Your task to perform on an android device: Empty the shopping cart on ebay. Search for "sony triple a" on ebay, select the first entry, add it to the cart, then select checkout. Image 0: 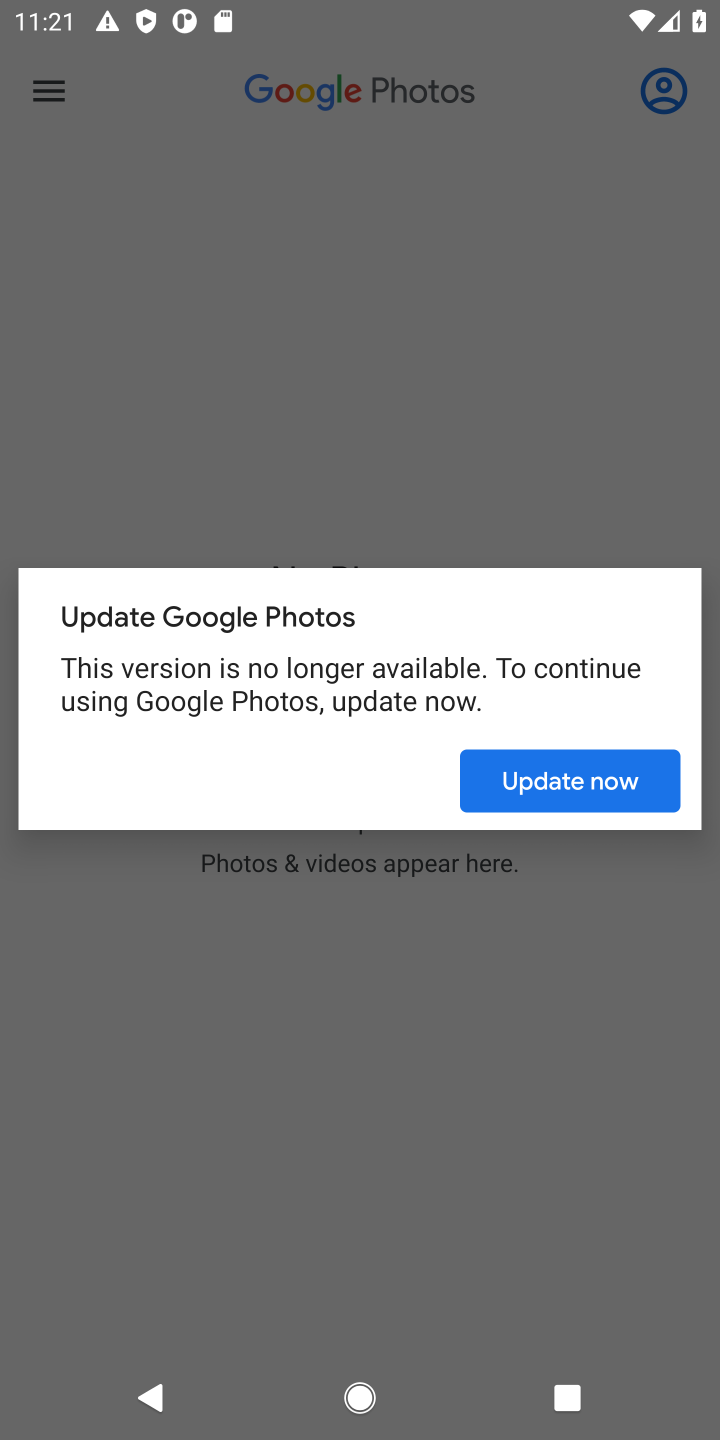
Step 0: press home button
Your task to perform on an android device: Empty the shopping cart on ebay. Search for "sony triple a" on ebay, select the first entry, add it to the cart, then select checkout. Image 1: 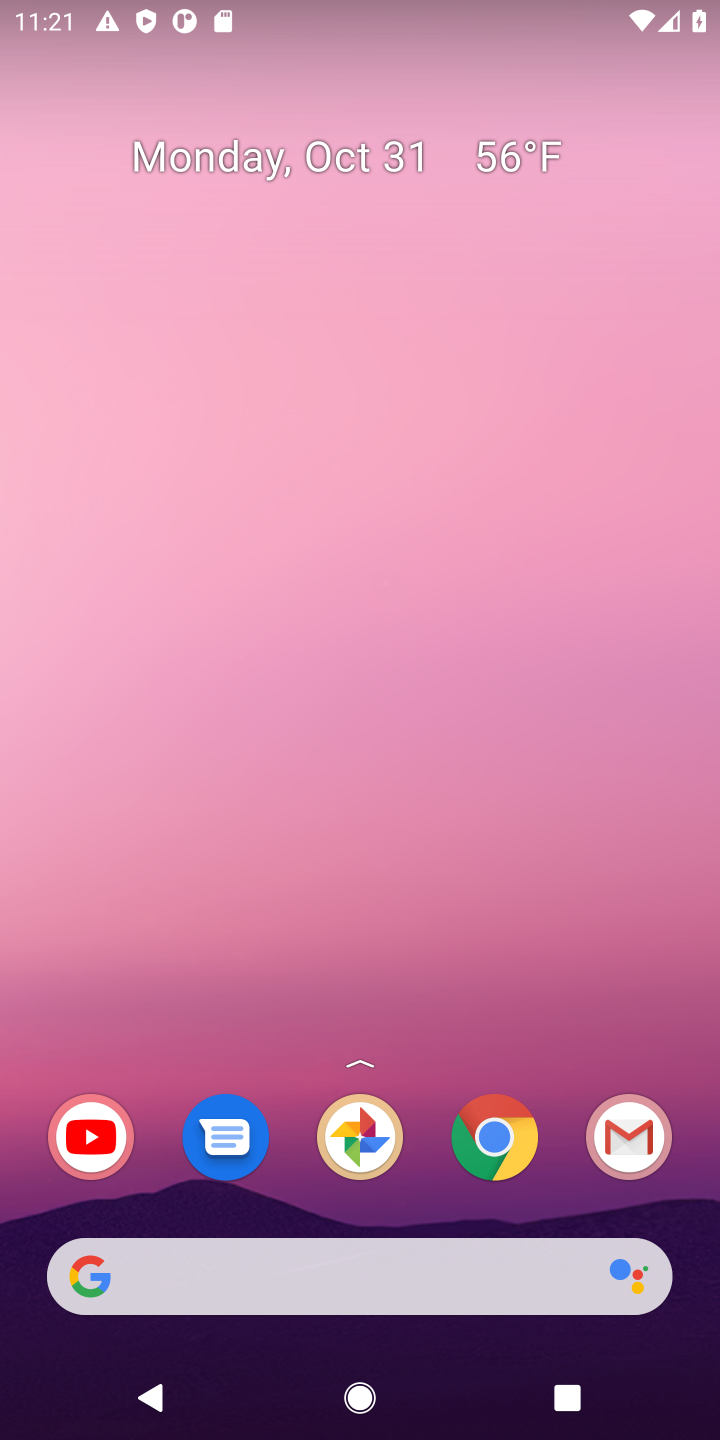
Step 1: click (494, 1138)
Your task to perform on an android device: Empty the shopping cart on ebay. Search for "sony triple a" on ebay, select the first entry, add it to the cart, then select checkout. Image 2: 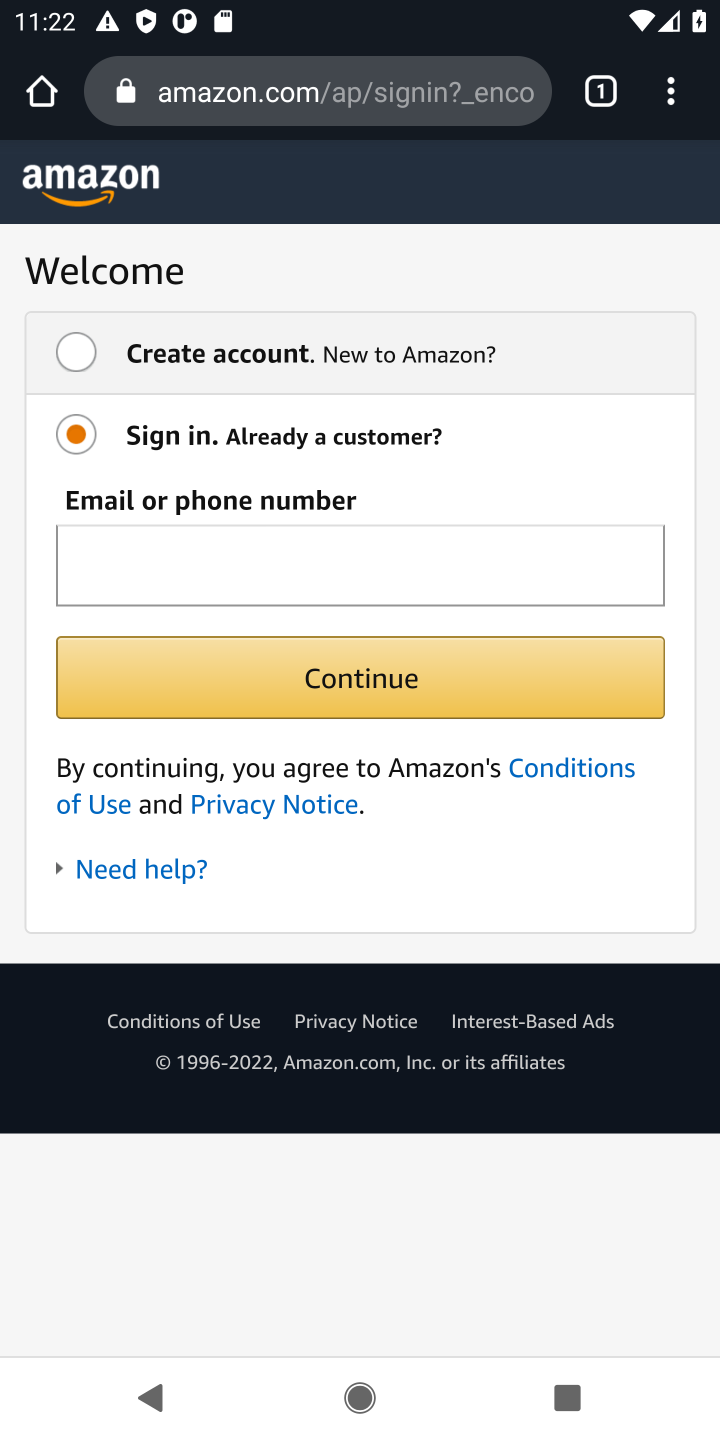
Step 2: click (430, 102)
Your task to perform on an android device: Empty the shopping cart on ebay. Search for "sony triple a" on ebay, select the first entry, add it to the cart, then select checkout. Image 3: 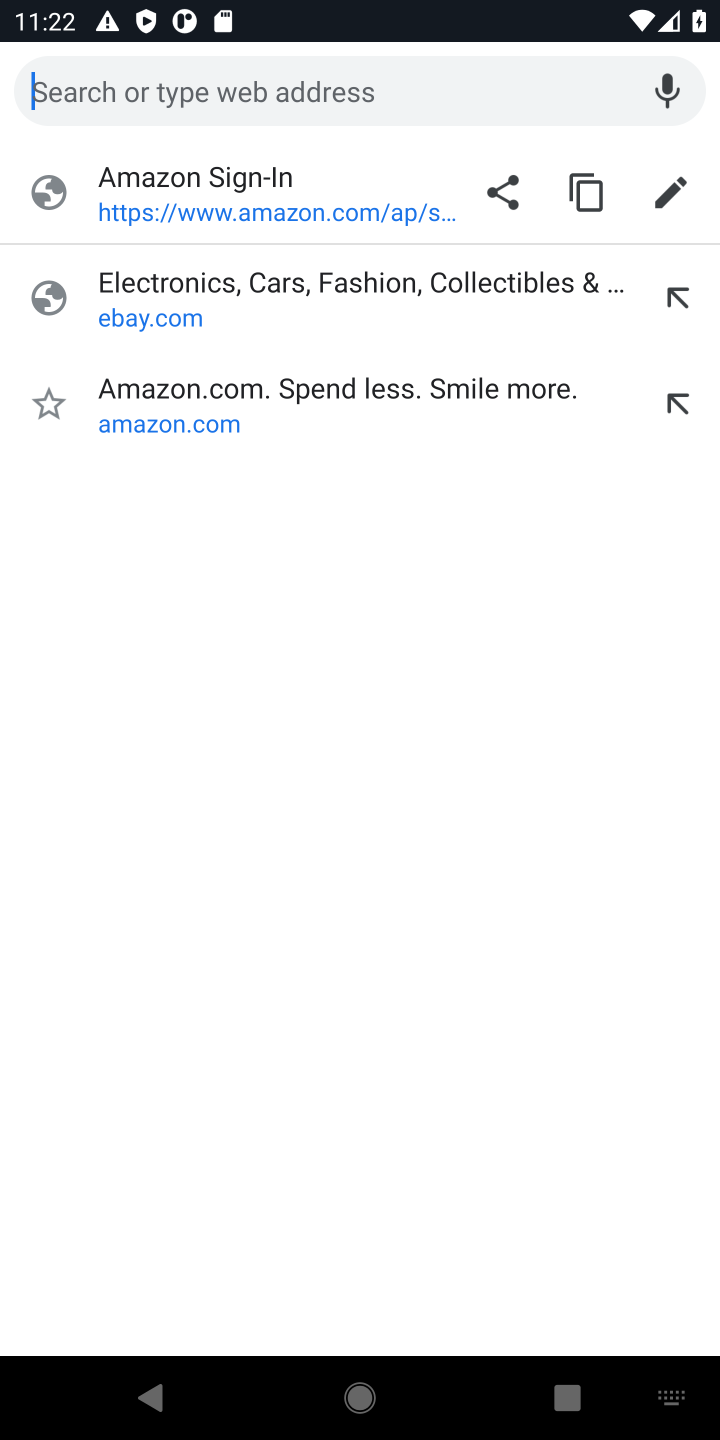
Step 3: type "ebay"
Your task to perform on an android device: Empty the shopping cart on ebay. Search for "sony triple a" on ebay, select the first entry, add it to the cart, then select checkout. Image 4: 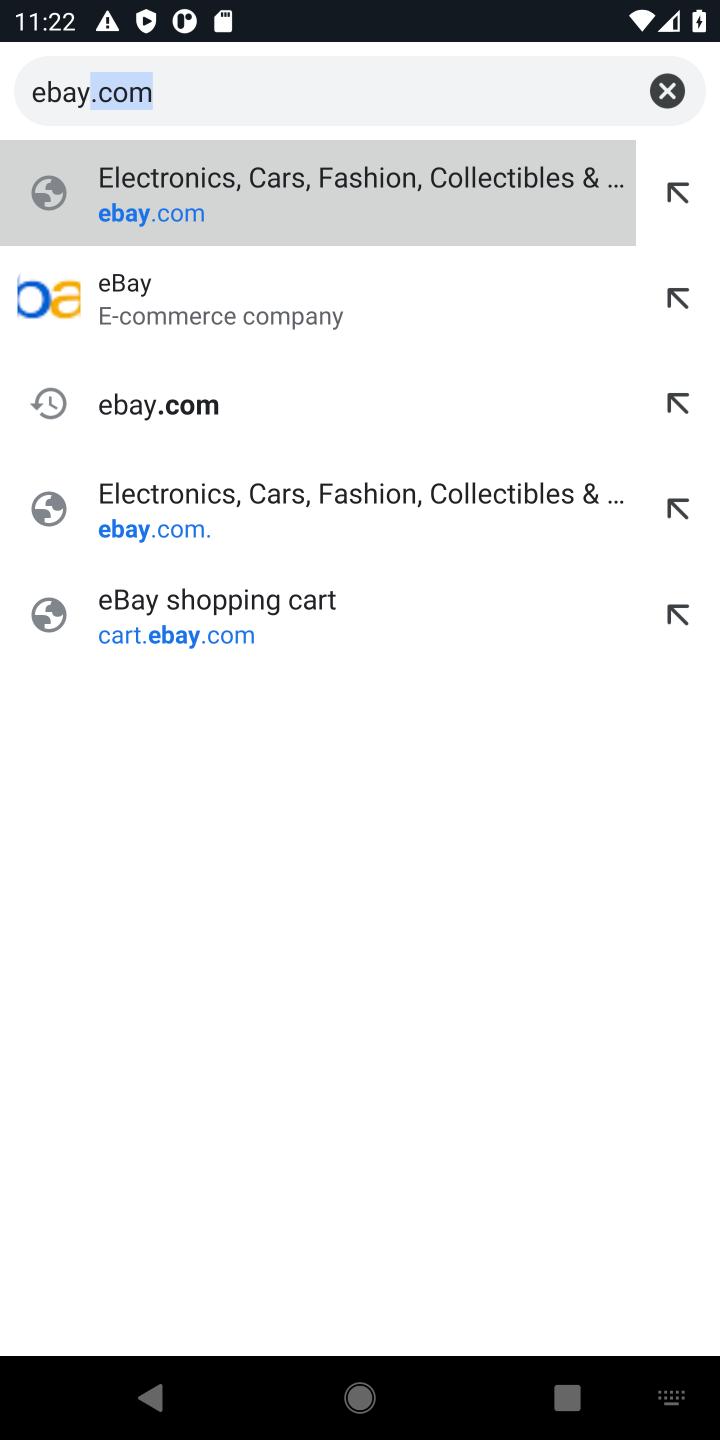
Step 4: click (153, 313)
Your task to perform on an android device: Empty the shopping cart on ebay. Search for "sony triple a" on ebay, select the first entry, add it to the cart, then select checkout. Image 5: 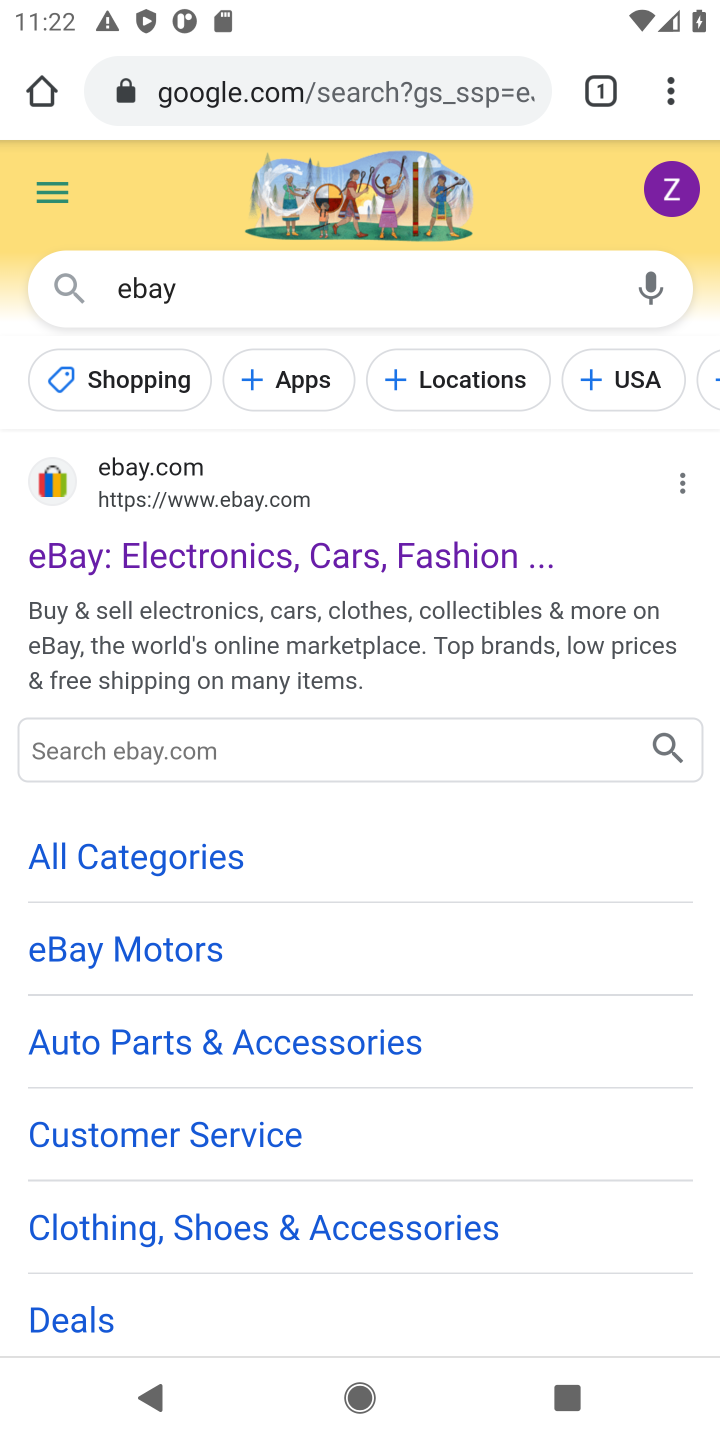
Step 5: click (189, 553)
Your task to perform on an android device: Empty the shopping cart on ebay. Search for "sony triple a" on ebay, select the first entry, add it to the cart, then select checkout. Image 6: 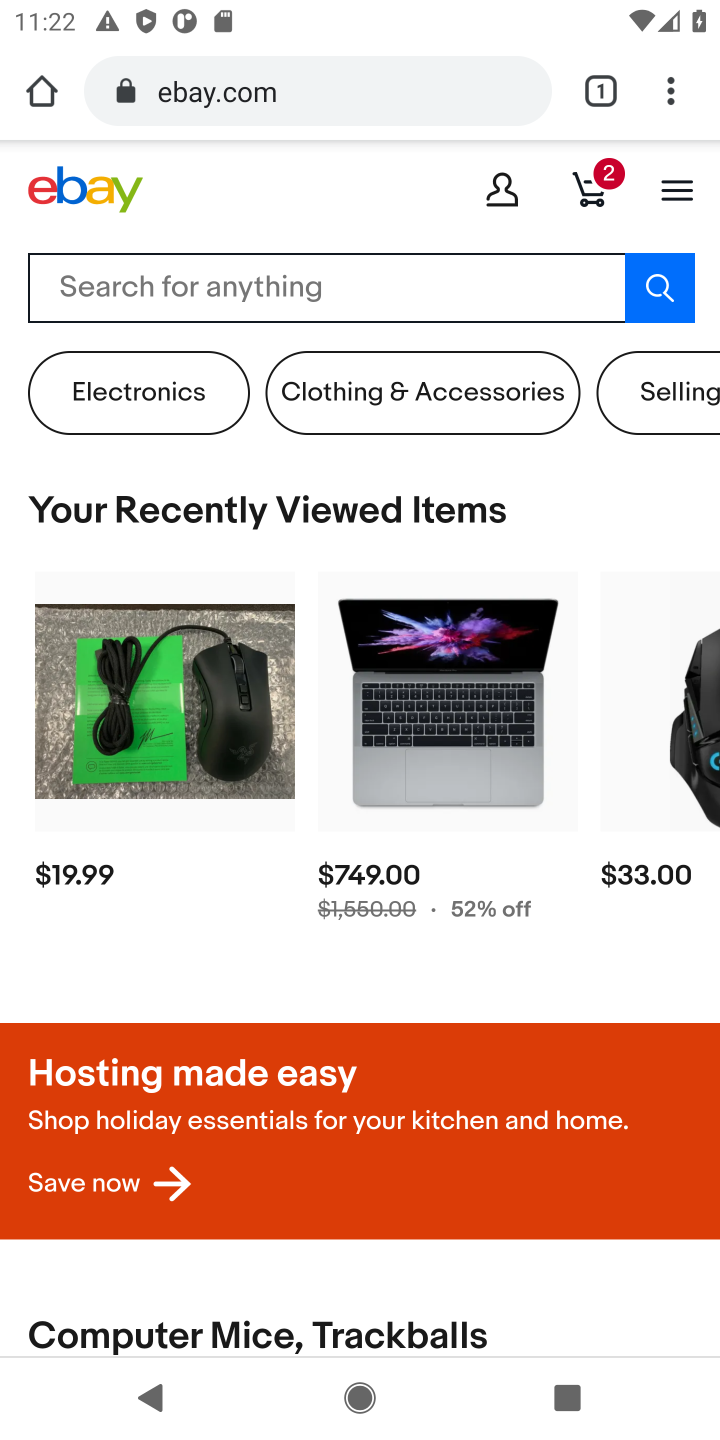
Step 6: click (589, 194)
Your task to perform on an android device: Empty the shopping cart on ebay. Search for "sony triple a" on ebay, select the first entry, add it to the cart, then select checkout. Image 7: 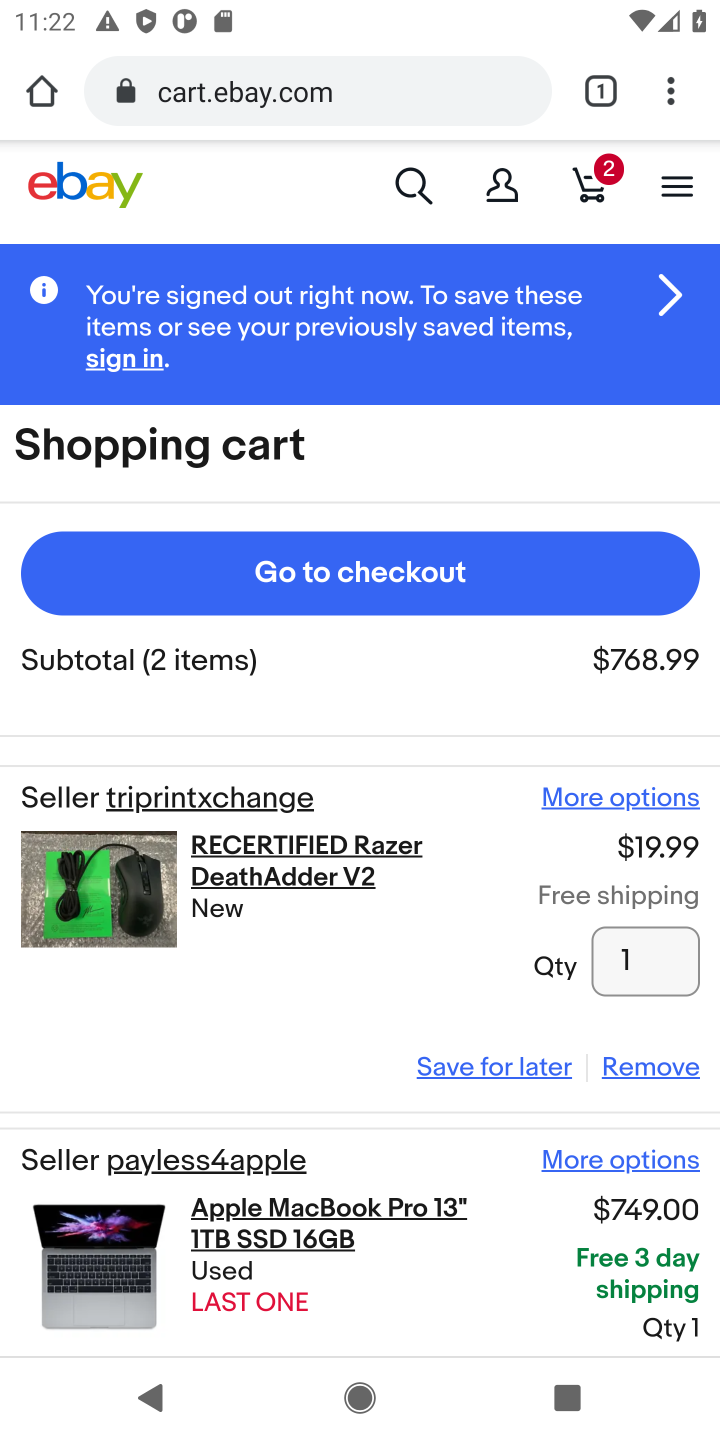
Step 7: click (640, 1070)
Your task to perform on an android device: Empty the shopping cart on ebay. Search for "sony triple a" on ebay, select the first entry, add it to the cart, then select checkout. Image 8: 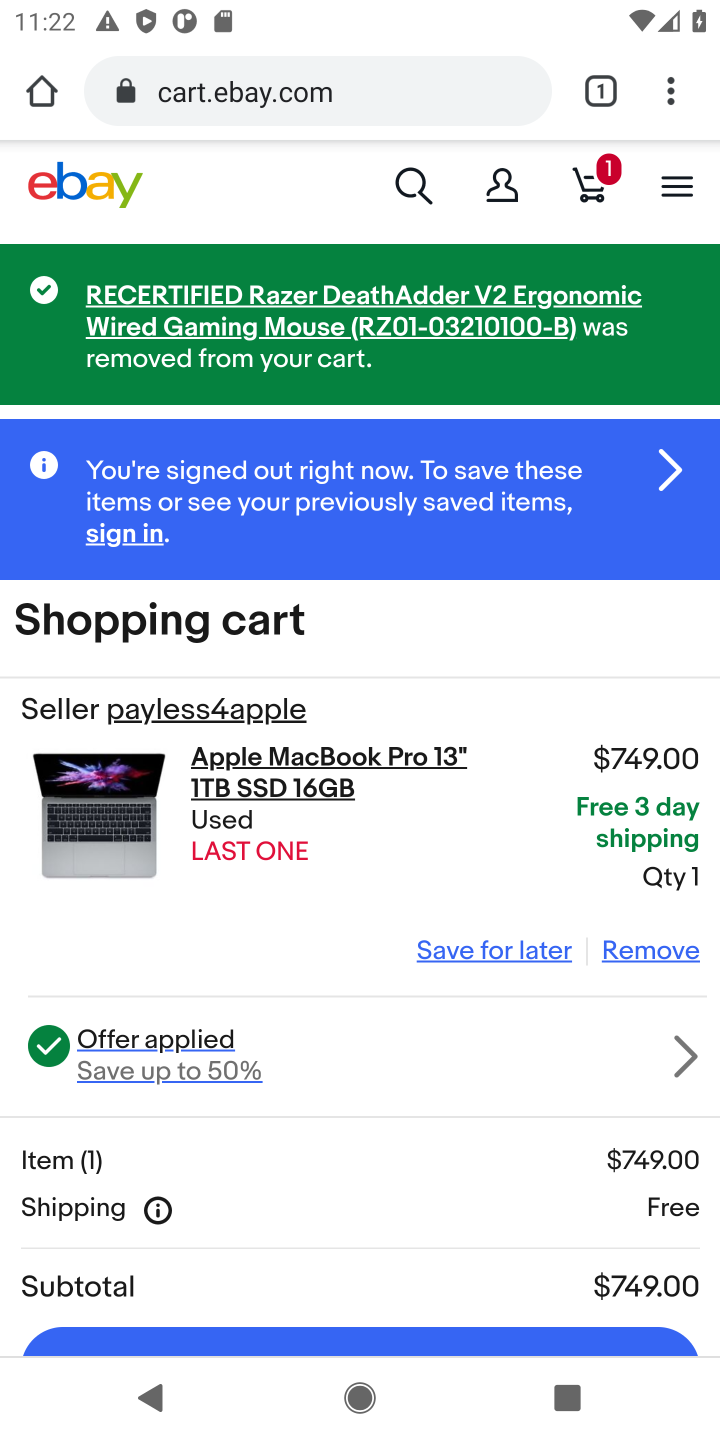
Step 8: click (651, 949)
Your task to perform on an android device: Empty the shopping cart on ebay. Search for "sony triple a" on ebay, select the first entry, add it to the cart, then select checkout. Image 9: 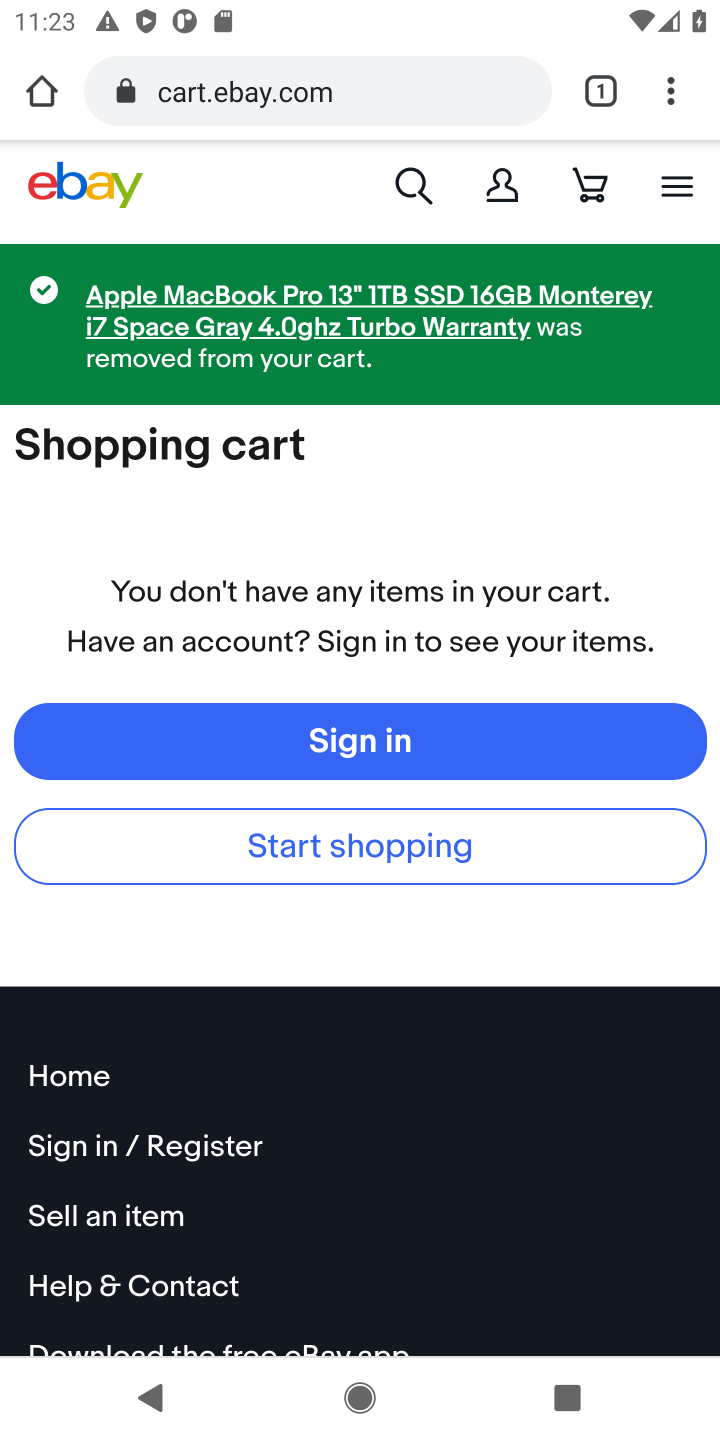
Step 9: click (407, 189)
Your task to perform on an android device: Empty the shopping cart on ebay. Search for "sony triple a" on ebay, select the first entry, add it to the cart, then select checkout. Image 10: 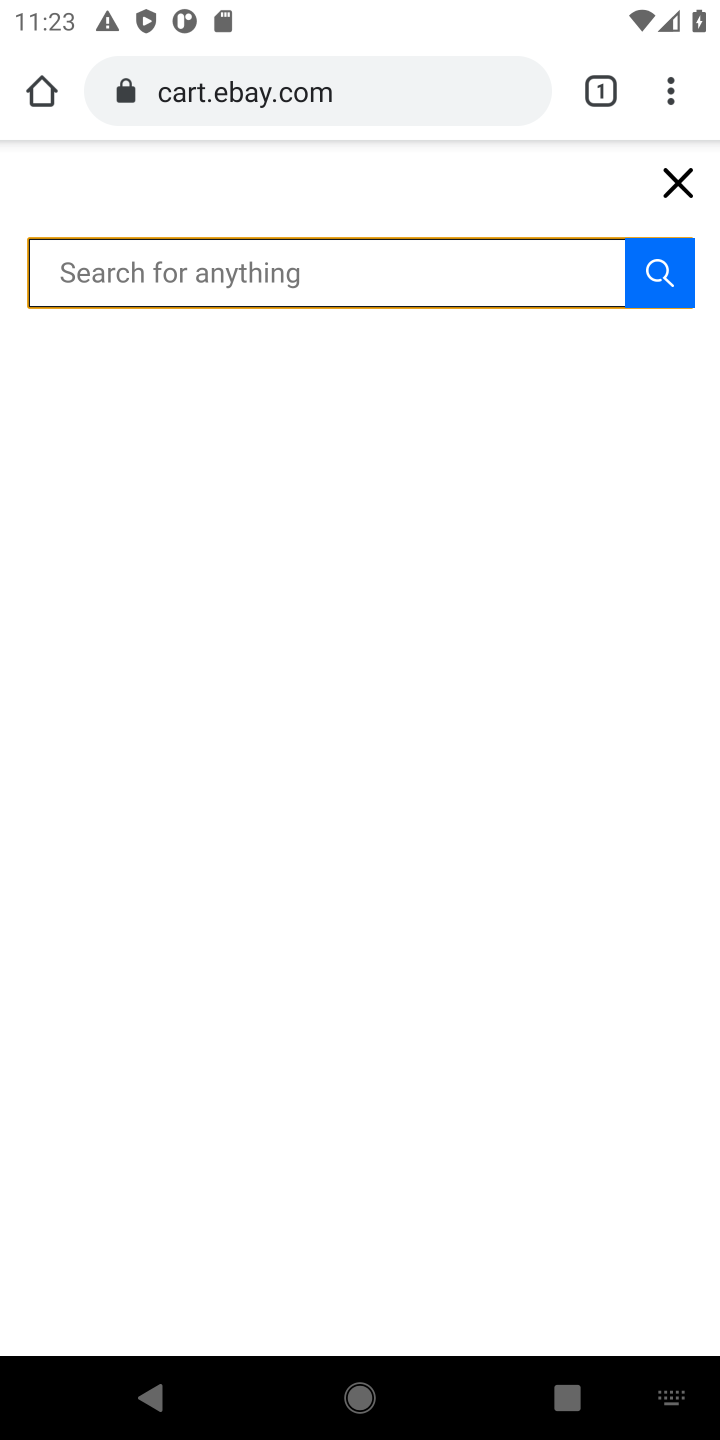
Step 10: type "sony triple a"
Your task to perform on an android device: Empty the shopping cart on ebay. Search for "sony triple a" on ebay, select the first entry, add it to the cart, then select checkout. Image 11: 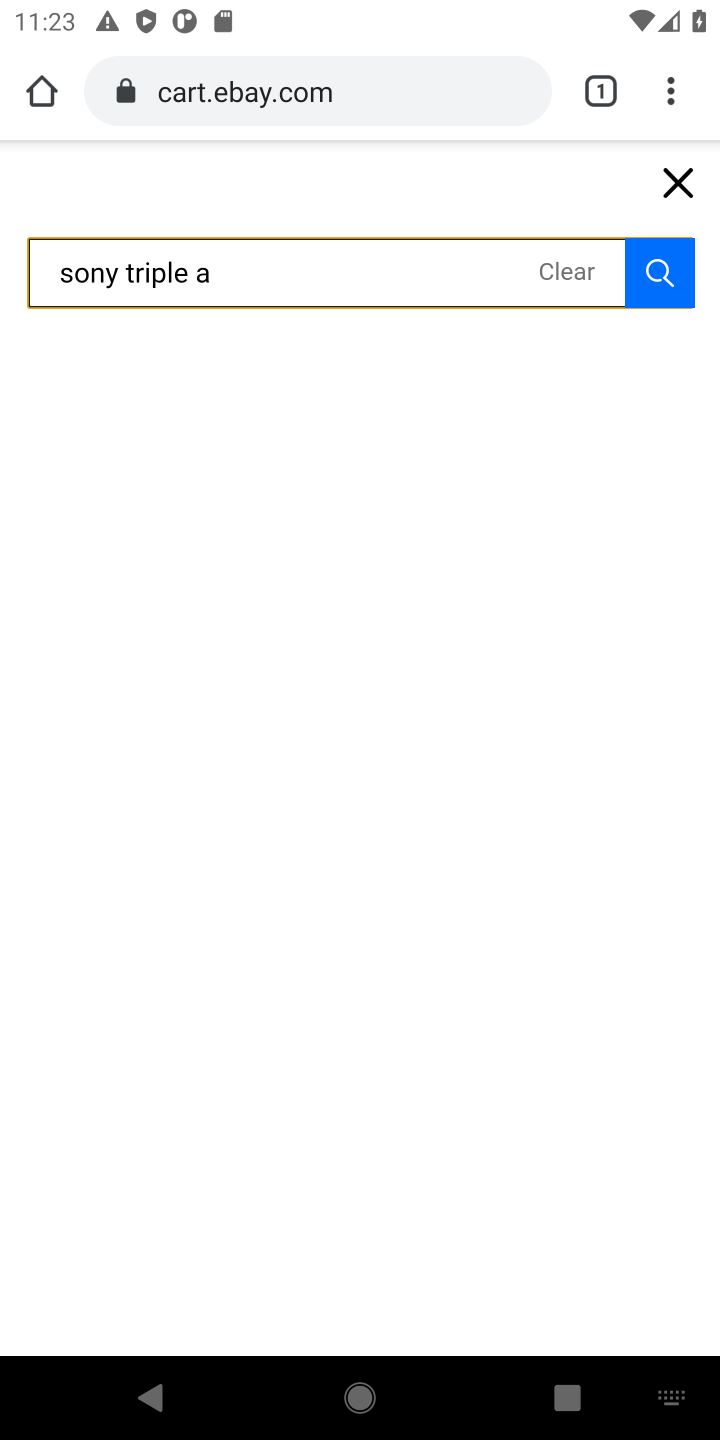
Step 11: click (656, 264)
Your task to perform on an android device: Empty the shopping cart on ebay. Search for "sony triple a" on ebay, select the first entry, add it to the cart, then select checkout. Image 12: 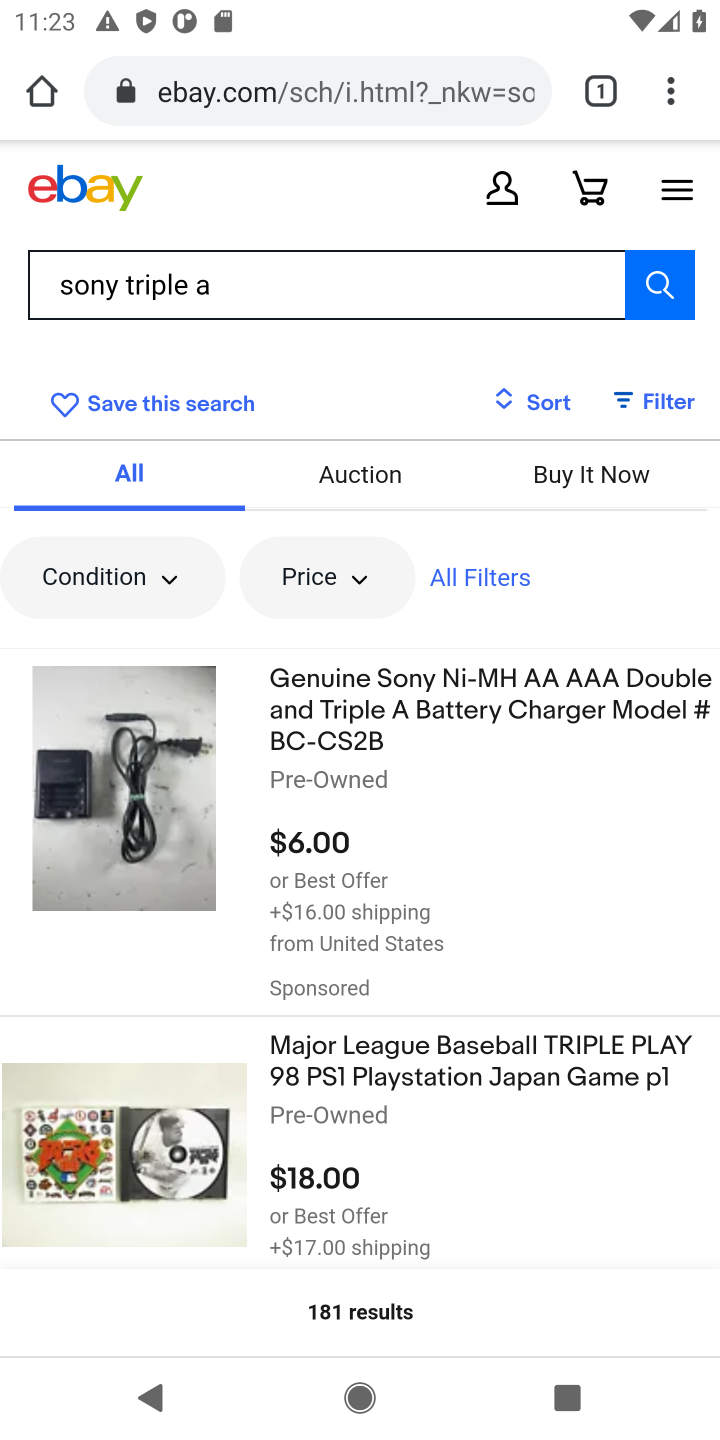
Step 12: drag from (491, 1125) to (509, 774)
Your task to perform on an android device: Empty the shopping cart on ebay. Search for "sony triple a" on ebay, select the first entry, add it to the cart, then select checkout. Image 13: 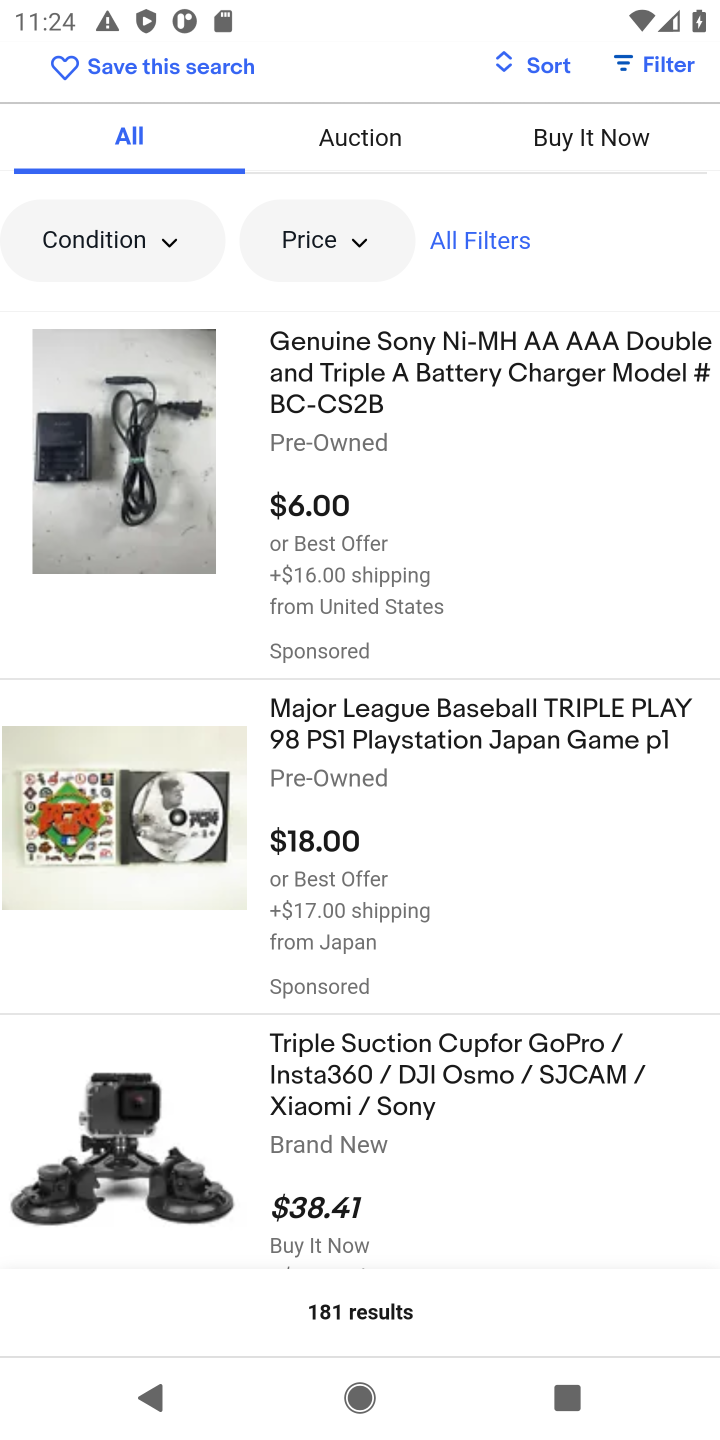
Step 13: click (418, 378)
Your task to perform on an android device: Empty the shopping cart on ebay. Search for "sony triple a" on ebay, select the first entry, add it to the cart, then select checkout. Image 14: 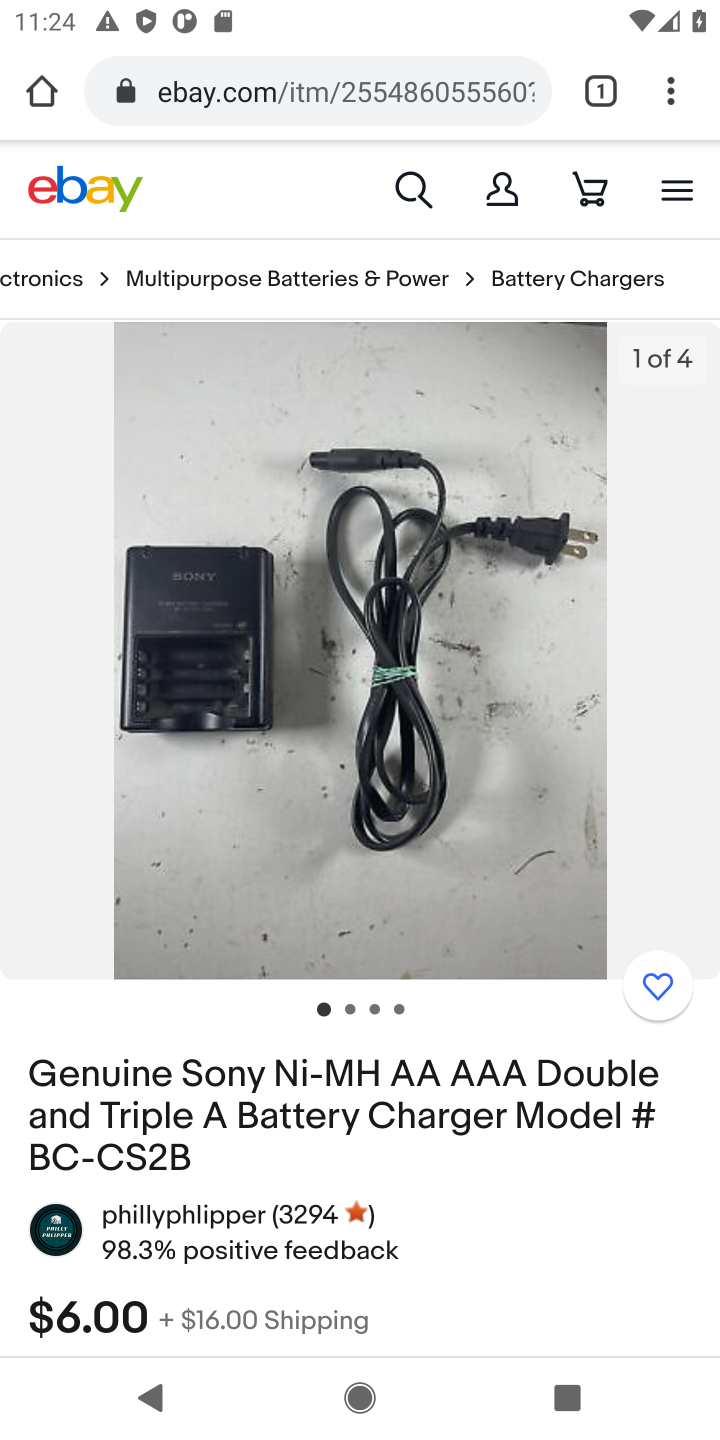
Step 14: drag from (436, 1237) to (491, 530)
Your task to perform on an android device: Empty the shopping cart on ebay. Search for "sony triple a" on ebay, select the first entry, add it to the cart, then select checkout. Image 15: 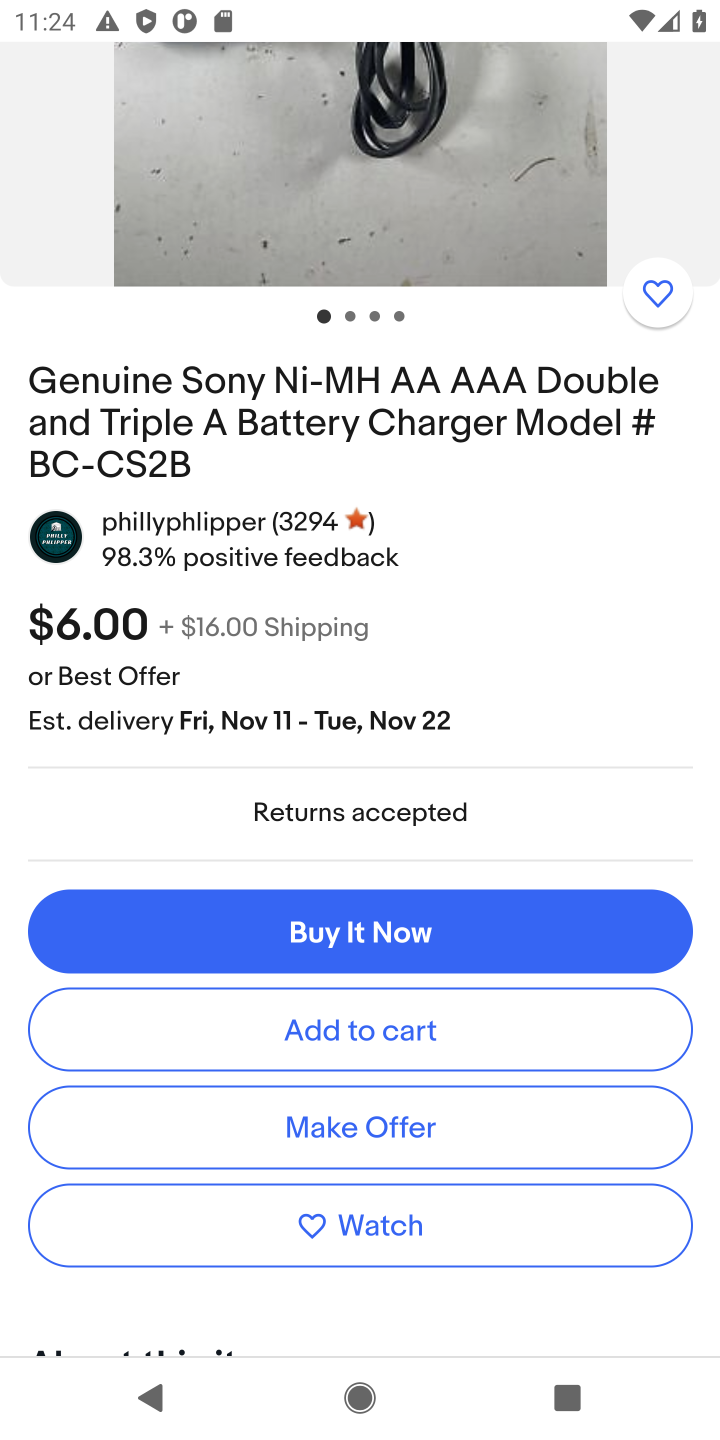
Step 15: click (364, 1032)
Your task to perform on an android device: Empty the shopping cart on ebay. Search for "sony triple a" on ebay, select the first entry, add it to the cart, then select checkout. Image 16: 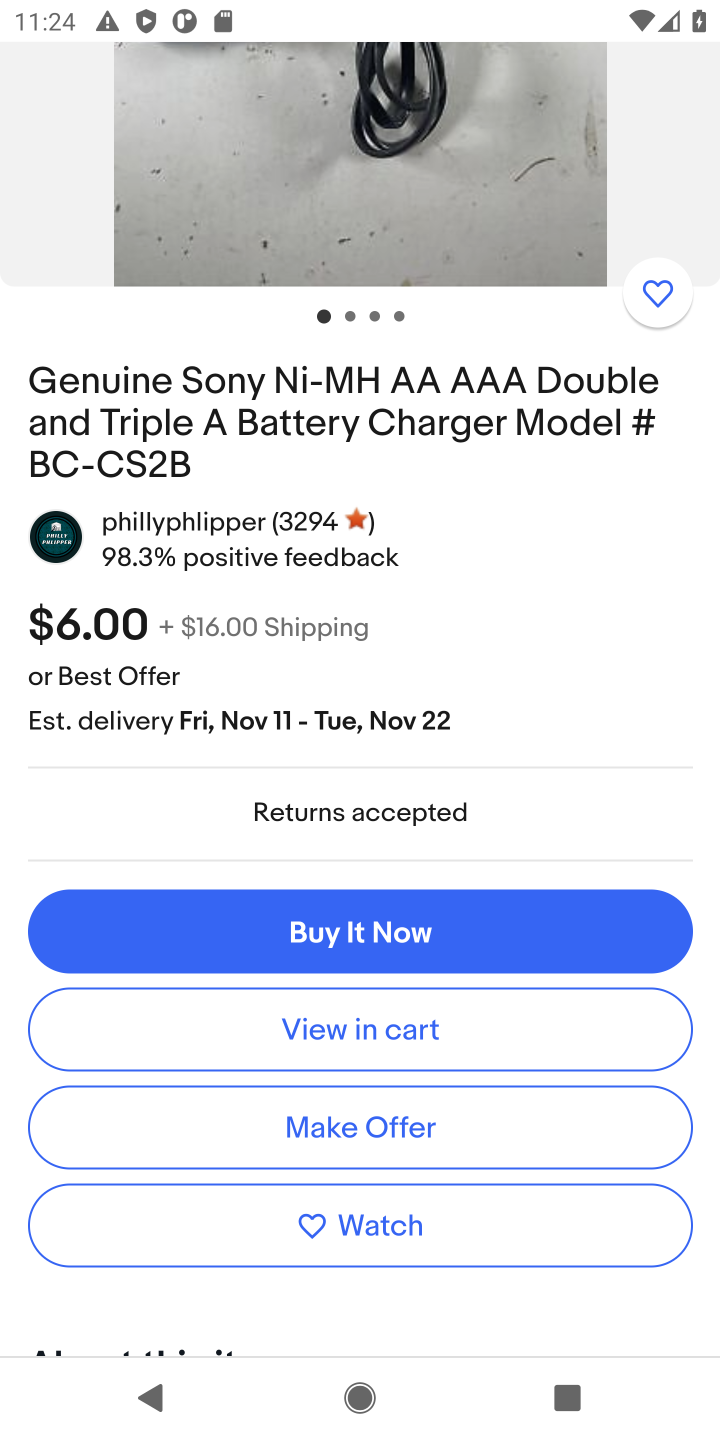
Step 16: click (364, 1032)
Your task to perform on an android device: Empty the shopping cart on ebay. Search for "sony triple a" on ebay, select the first entry, add it to the cart, then select checkout. Image 17: 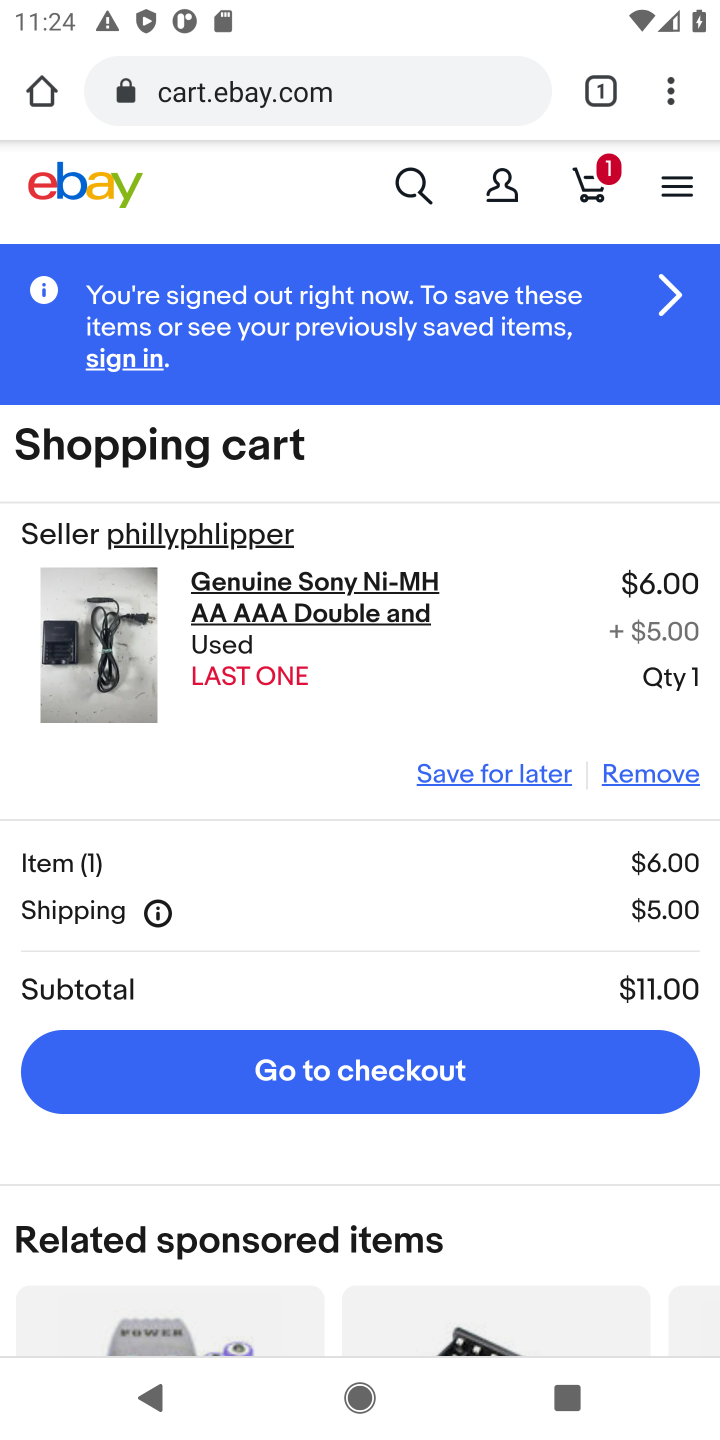
Step 17: click (369, 1073)
Your task to perform on an android device: Empty the shopping cart on ebay. Search for "sony triple a" on ebay, select the first entry, add it to the cart, then select checkout. Image 18: 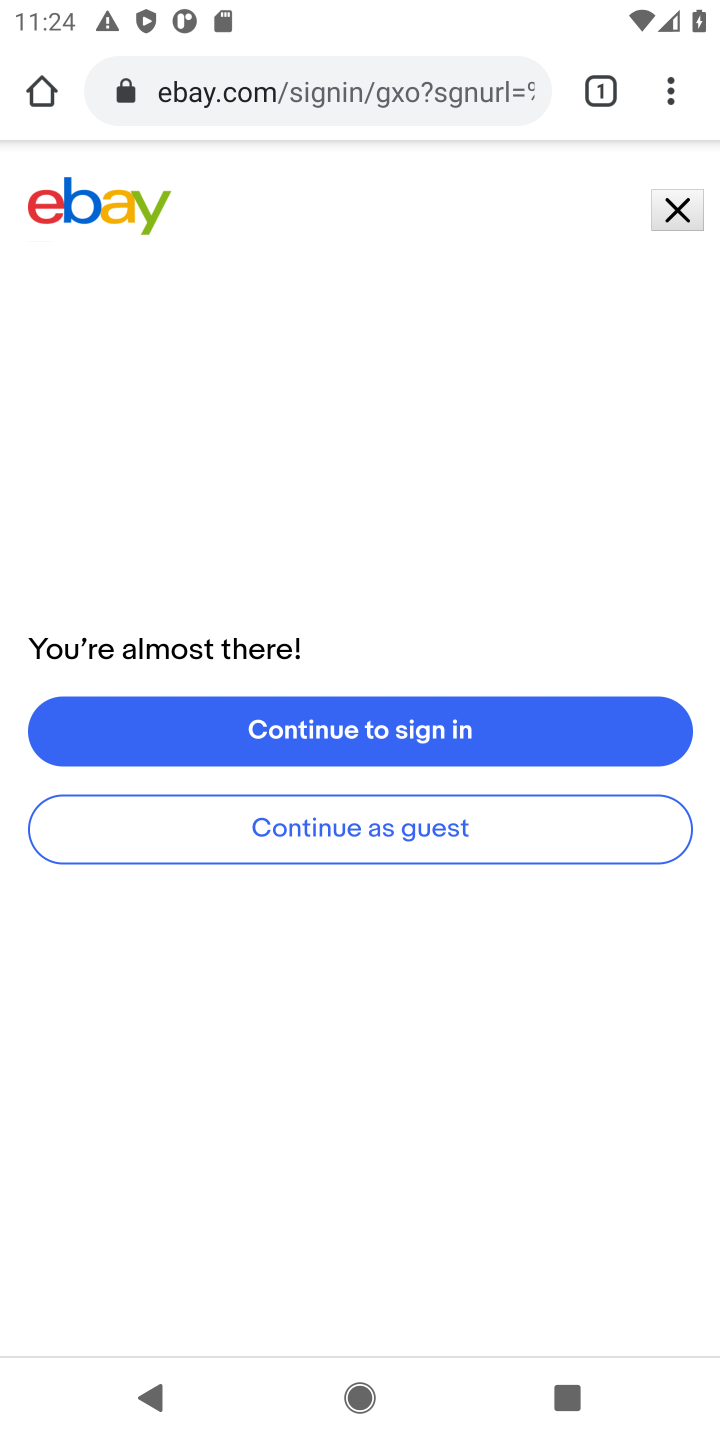
Step 18: task complete